Your task to perform on an android device: turn on javascript in the chrome app Image 0: 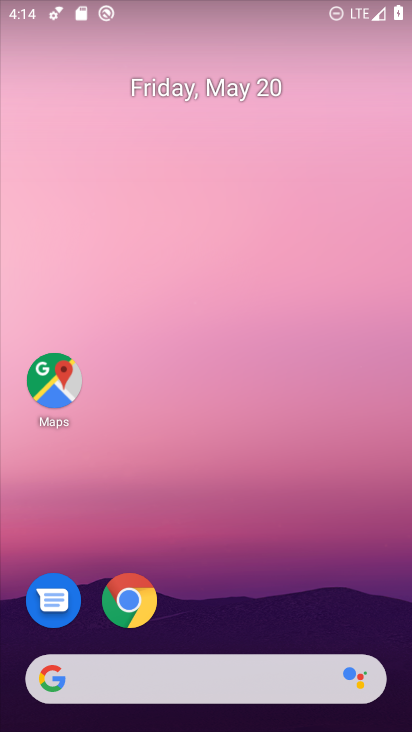
Step 0: click (153, 594)
Your task to perform on an android device: turn on javascript in the chrome app Image 1: 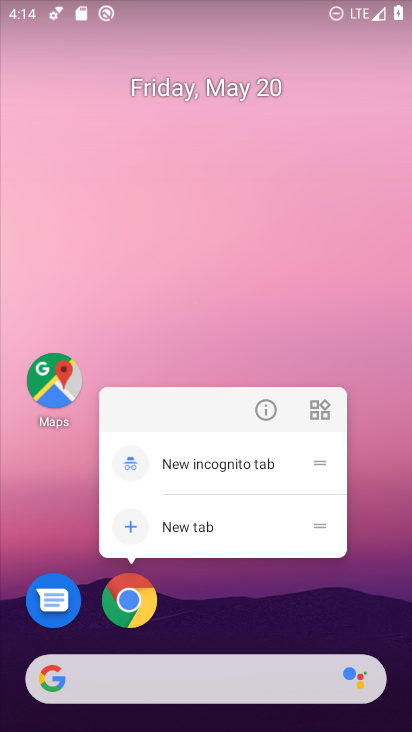
Step 1: click (136, 594)
Your task to perform on an android device: turn on javascript in the chrome app Image 2: 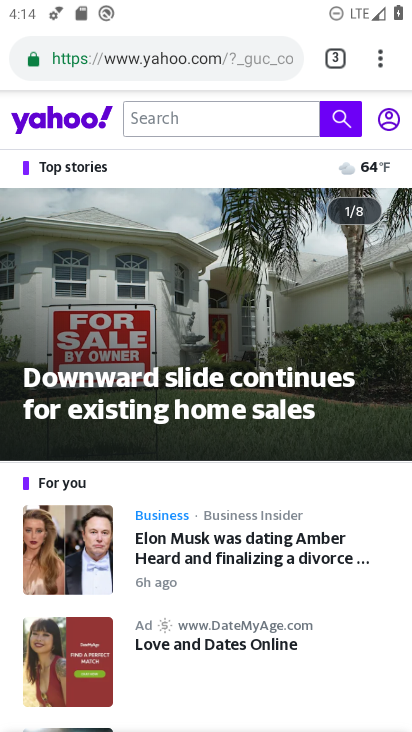
Step 2: drag from (385, 53) to (189, 612)
Your task to perform on an android device: turn on javascript in the chrome app Image 3: 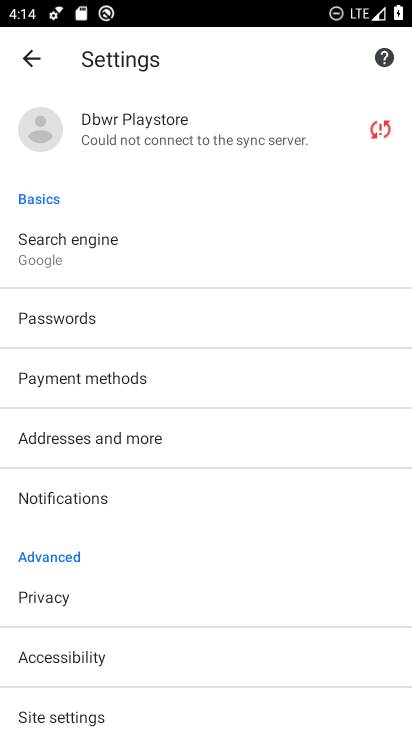
Step 3: drag from (134, 689) to (195, 284)
Your task to perform on an android device: turn on javascript in the chrome app Image 4: 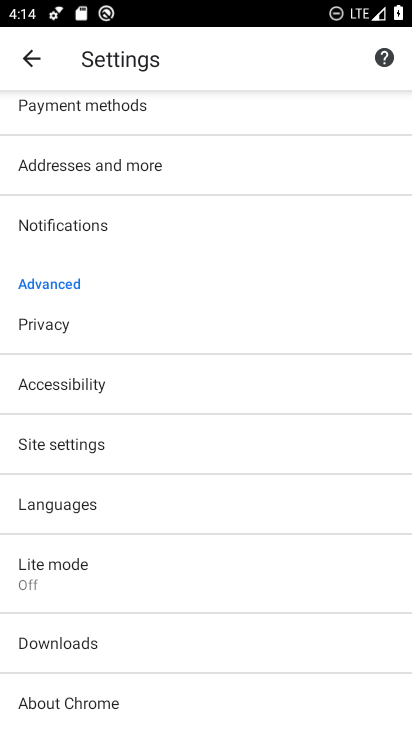
Step 4: click (94, 450)
Your task to perform on an android device: turn on javascript in the chrome app Image 5: 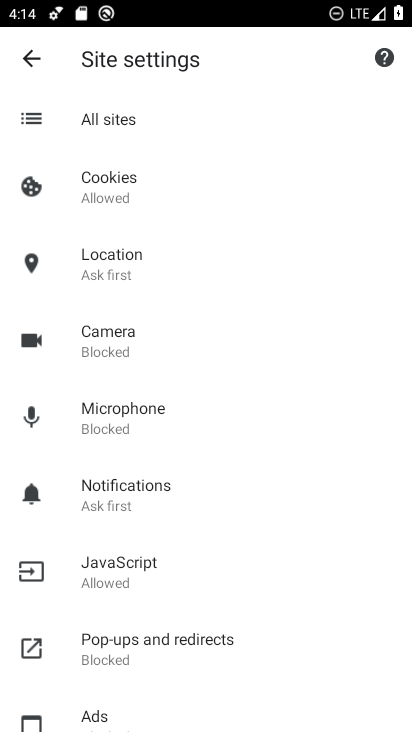
Step 5: click (93, 574)
Your task to perform on an android device: turn on javascript in the chrome app Image 6: 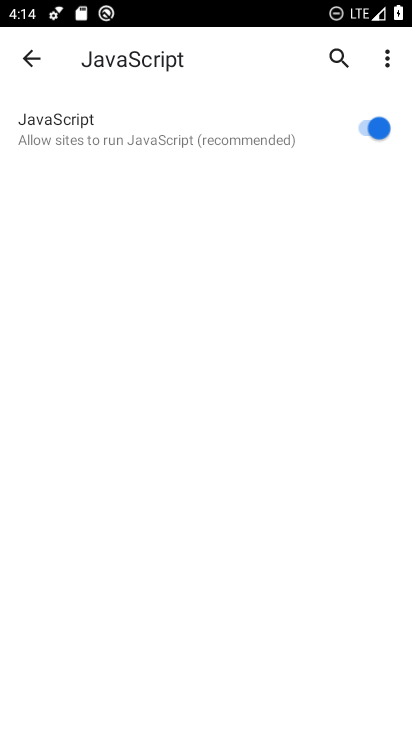
Step 6: task complete